Your task to perform on an android device: change the clock style Image 0: 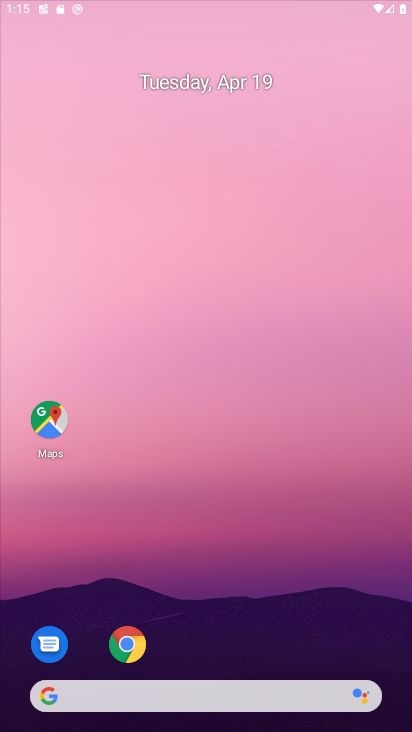
Step 0: drag from (215, 653) to (408, 45)
Your task to perform on an android device: change the clock style Image 1: 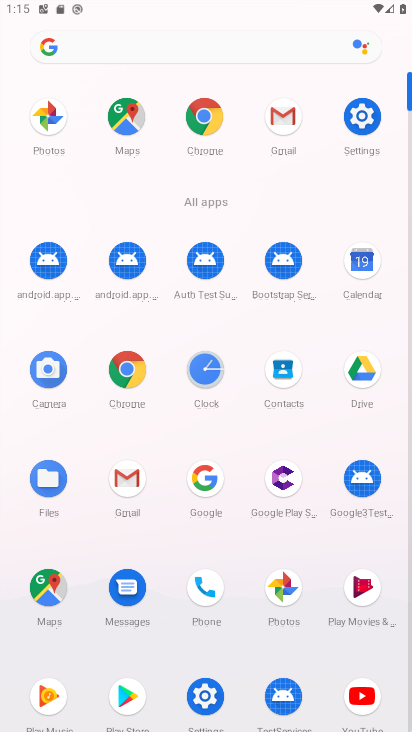
Step 1: click (206, 379)
Your task to perform on an android device: change the clock style Image 2: 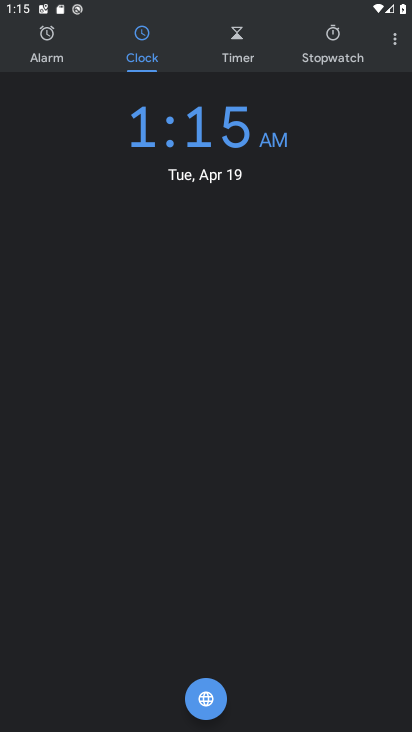
Step 2: click (387, 42)
Your task to perform on an android device: change the clock style Image 3: 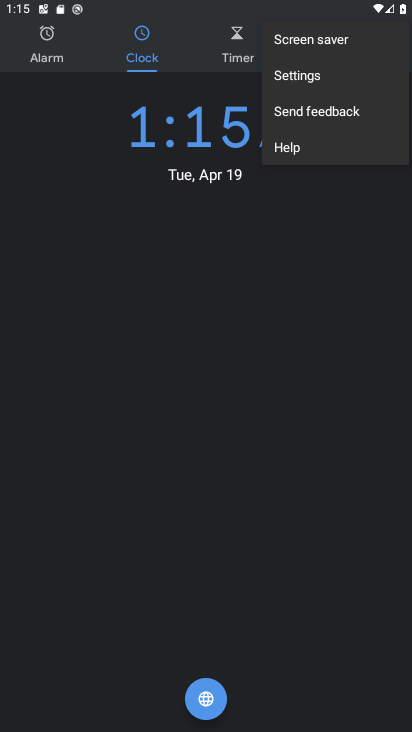
Step 3: click (309, 74)
Your task to perform on an android device: change the clock style Image 4: 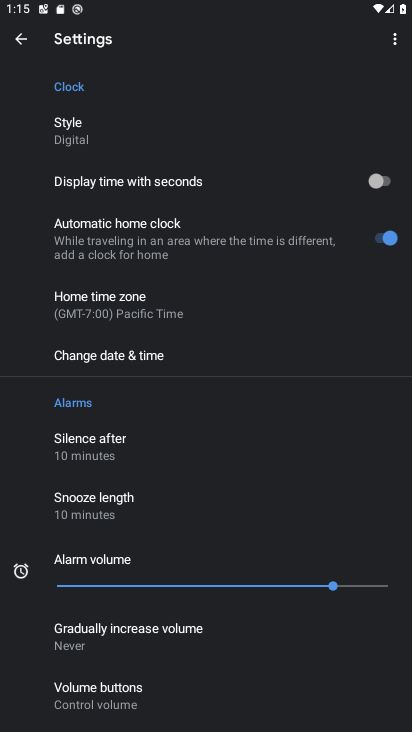
Step 4: click (89, 139)
Your task to perform on an android device: change the clock style Image 5: 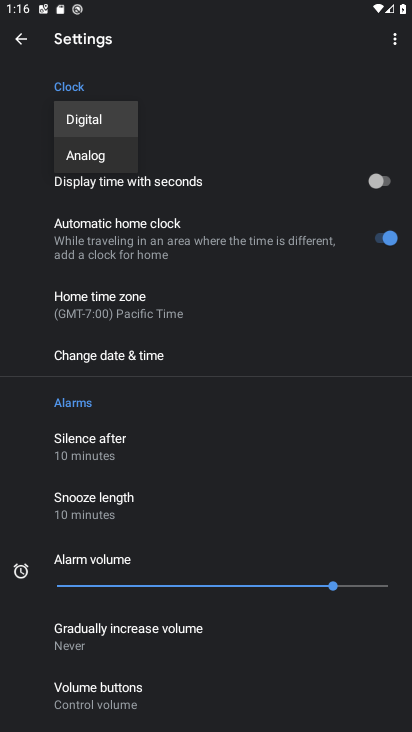
Step 5: click (102, 160)
Your task to perform on an android device: change the clock style Image 6: 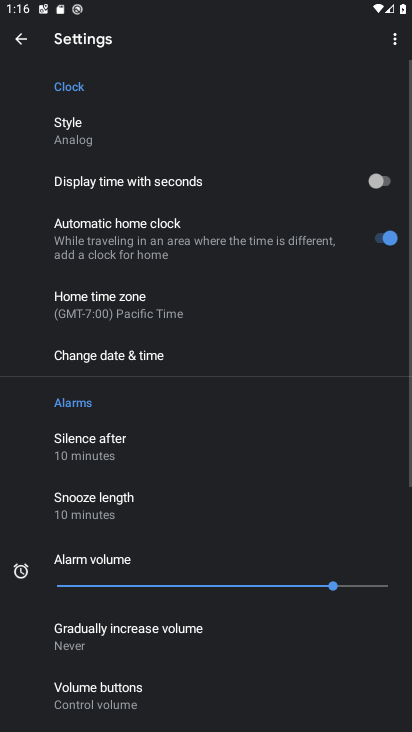
Step 6: task complete